Your task to perform on an android device: change timer sound Image 0: 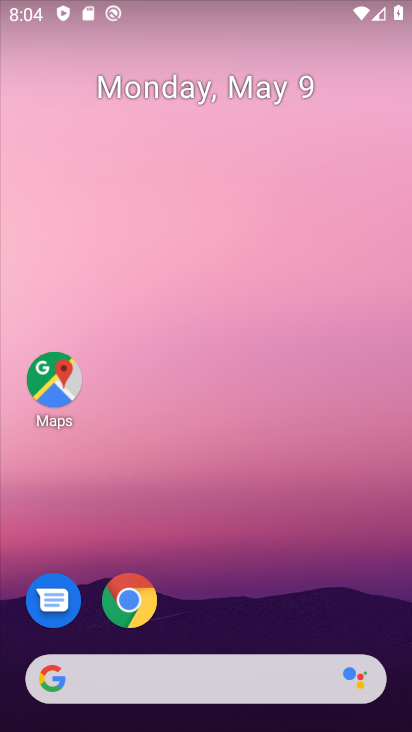
Step 0: drag from (206, 530) to (195, 107)
Your task to perform on an android device: change timer sound Image 1: 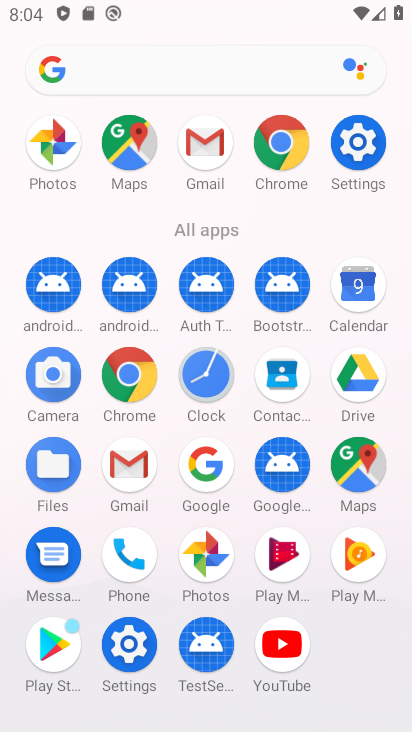
Step 1: click (210, 371)
Your task to perform on an android device: change timer sound Image 2: 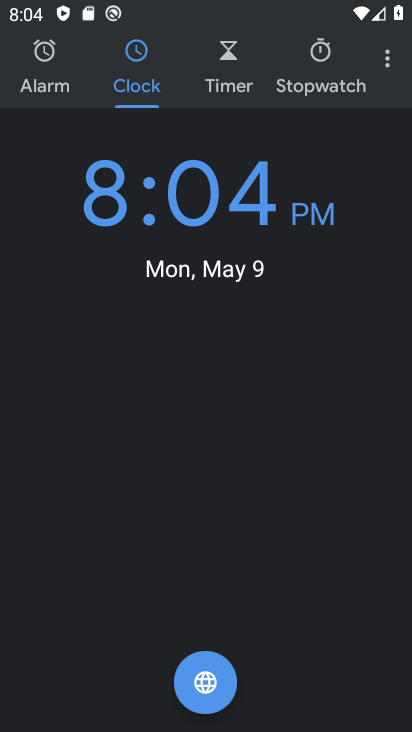
Step 2: drag from (384, 66) to (337, 108)
Your task to perform on an android device: change timer sound Image 3: 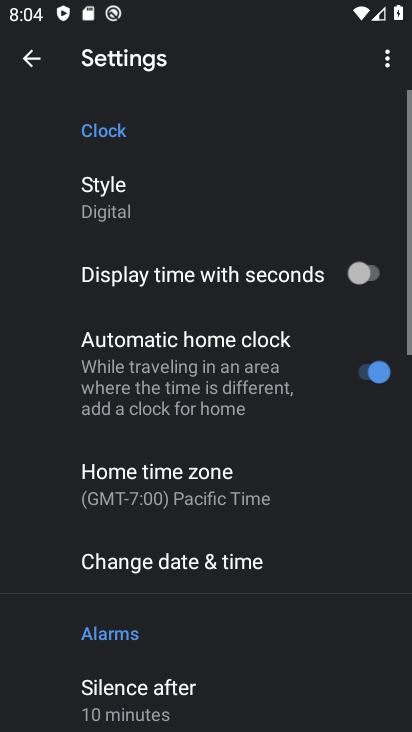
Step 3: drag from (245, 557) to (208, 160)
Your task to perform on an android device: change timer sound Image 4: 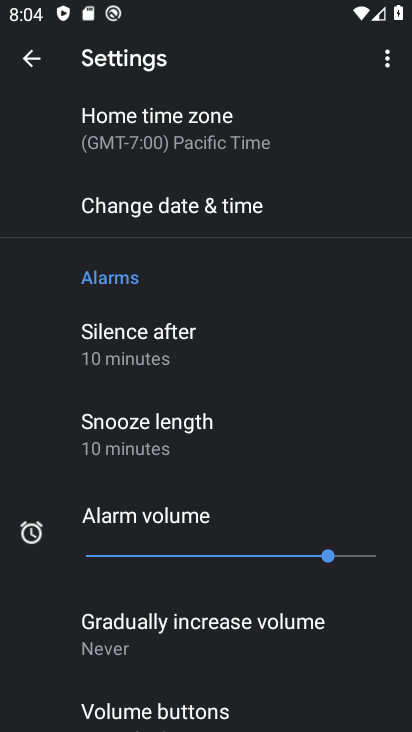
Step 4: drag from (248, 437) to (248, 131)
Your task to perform on an android device: change timer sound Image 5: 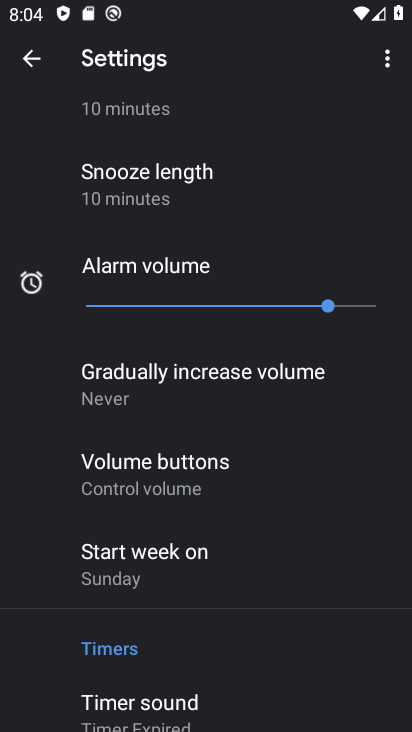
Step 5: drag from (267, 553) to (267, 151)
Your task to perform on an android device: change timer sound Image 6: 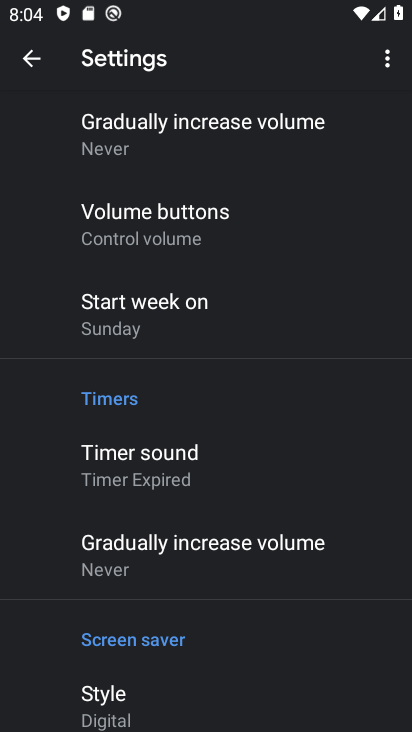
Step 6: drag from (248, 502) to (264, 144)
Your task to perform on an android device: change timer sound Image 7: 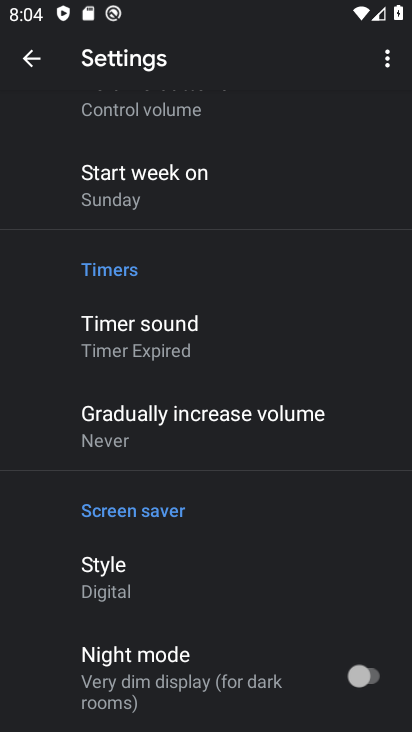
Step 7: drag from (238, 504) to (241, 205)
Your task to perform on an android device: change timer sound Image 8: 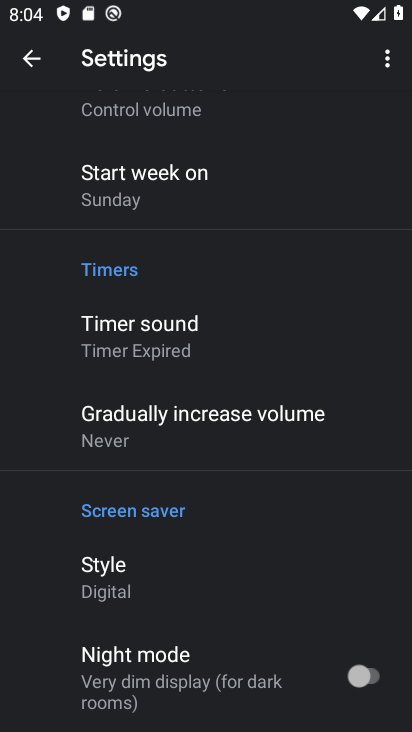
Step 8: click (220, 330)
Your task to perform on an android device: change timer sound Image 9: 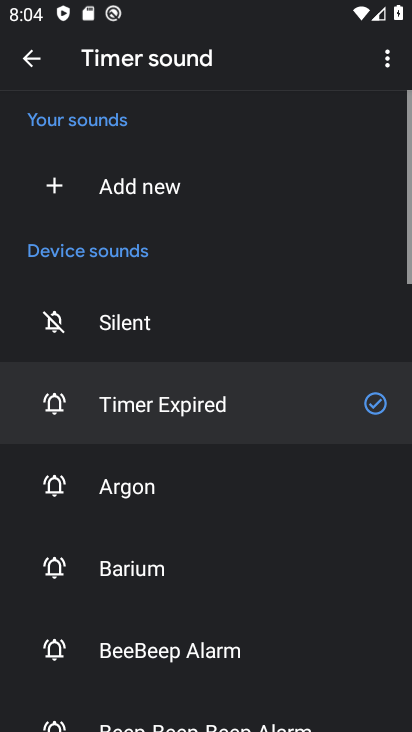
Step 9: drag from (189, 664) to (200, 266)
Your task to perform on an android device: change timer sound Image 10: 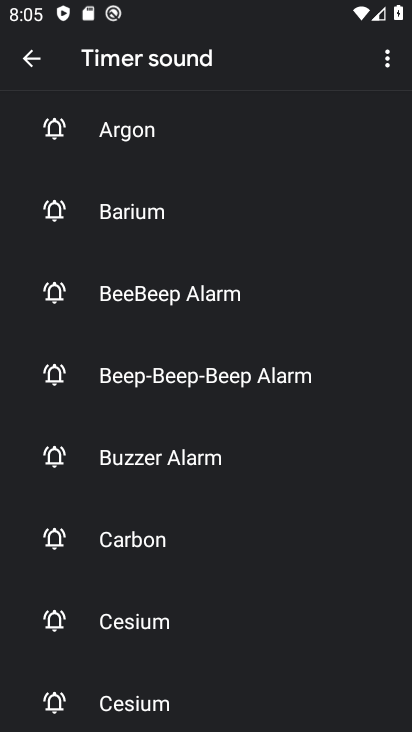
Step 10: click (153, 525)
Your task to perform on an android device: change timer sound Image 11: 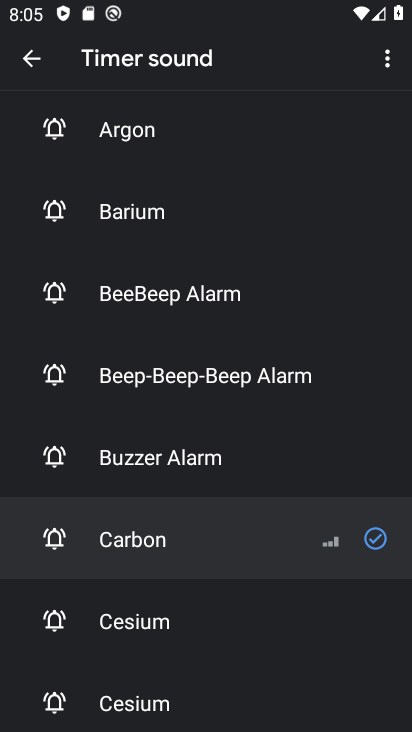
Step 11: task complete